Your task to perform on an android device: turn on the 12-hour format for clock Image 0: 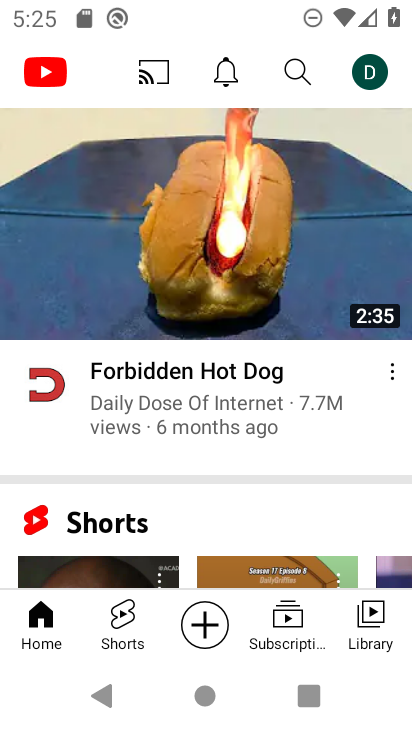
Step 0: press home button
Your task to perform on an android device: turn on the 12-hour format for clock Image 1: 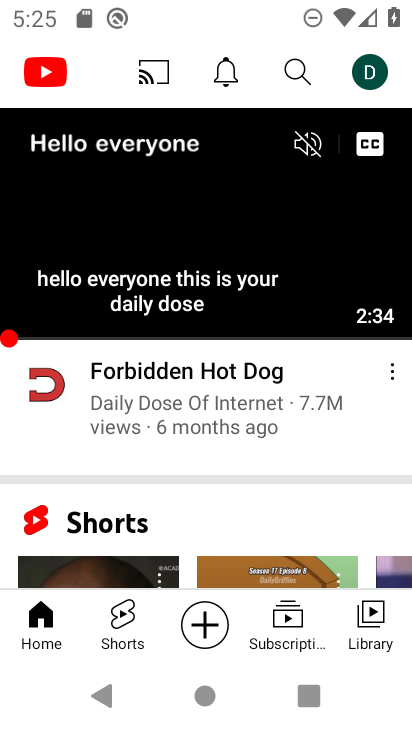
Step 1: press home button
Your task to perform on an android device: turn on the 12-hour format for clock Image 2: 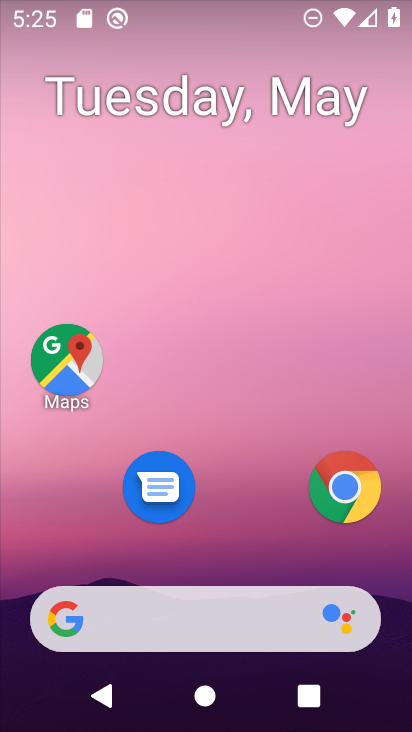
Step 2: drag from (284, 557) to (249, 3)
Your task to perform on an android device: turn on the 12-hour format for clock Image 3: 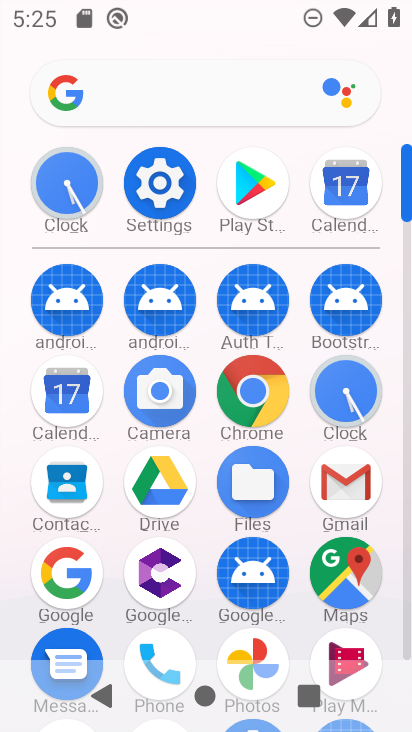
Step 3: click (141, 168)
Your task to perform on an android device: turn on the 12-hour format for clock Image 4: 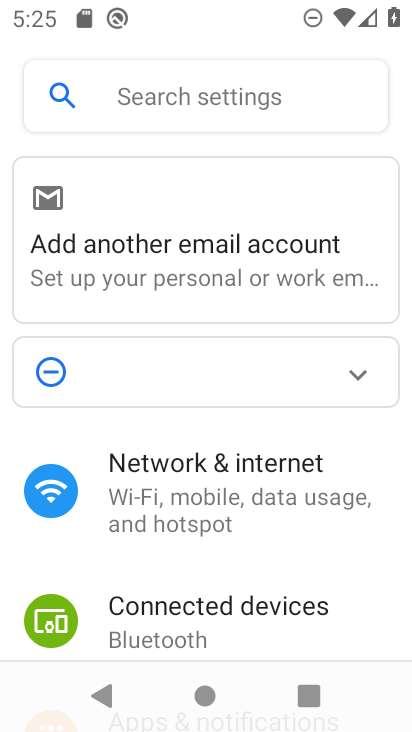
Step 4: press home button
Your task to perform on an android device: turn on the 12-hour format for clock Image 5: 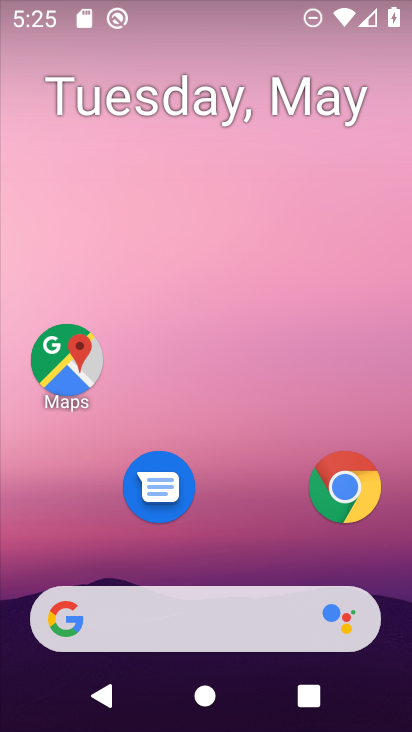
Step 5: drag from (286, 554) to (225, 218)
Your task to perform on an android device: turn on the 12-hour format for clock Image 6: 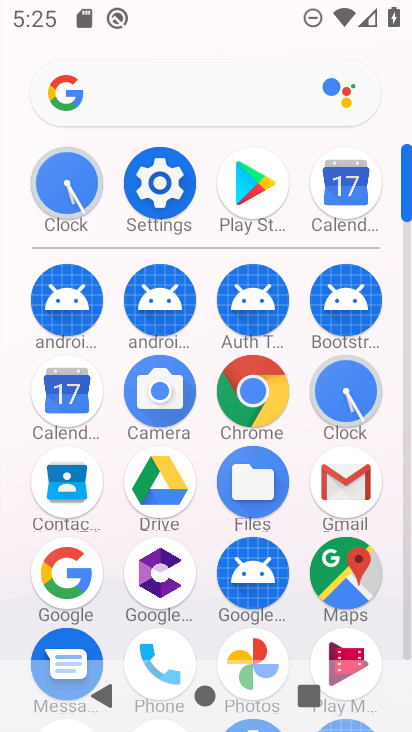
Step 6: click (357, 413)
Your task to perform on an android device: turn on the 12-hour format for clock Image 7: 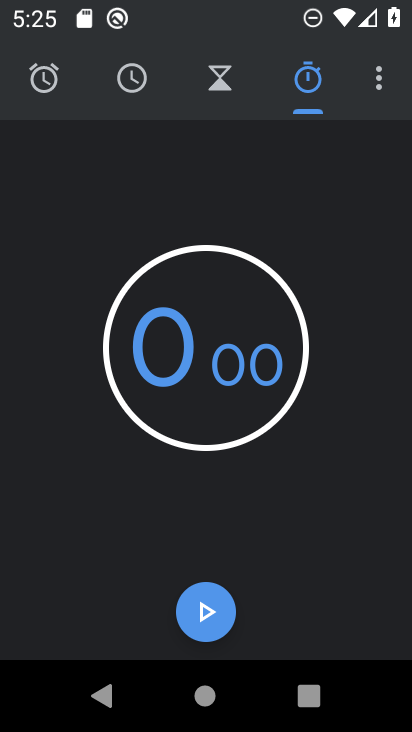
Step 7: click (385, 70)
Your task to perform on an android device: turn on the 12-hour format for clock Image 8: 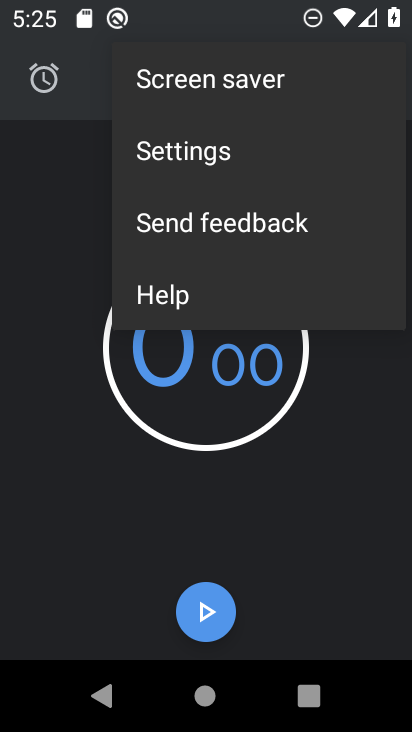
Step 8: click (184, 154)
Your task to perform on an android device: turn on the 12-hour format for clock Image 9: 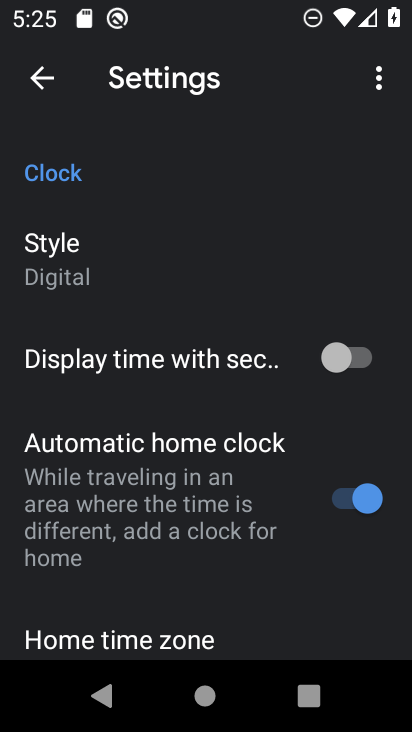
Step 9: drag from (140, 412) to (39, 60)
Your task to perform on an android device: turn on the 12-hour format for clock Image 10: 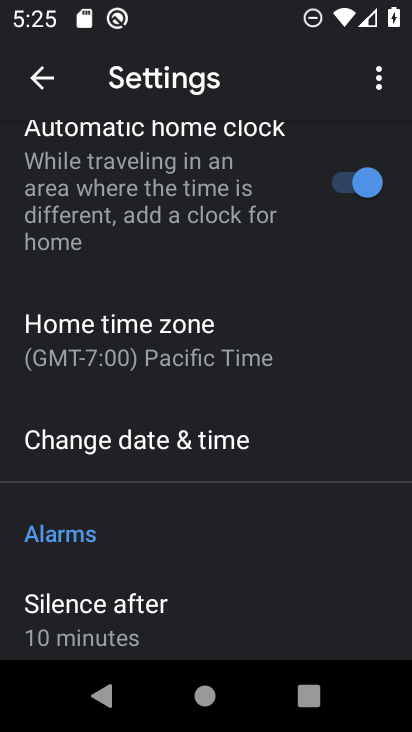
Step 10: click (74, 433)
Your task to perform on an android device: turn on the 12-hour format for clock Image 11: 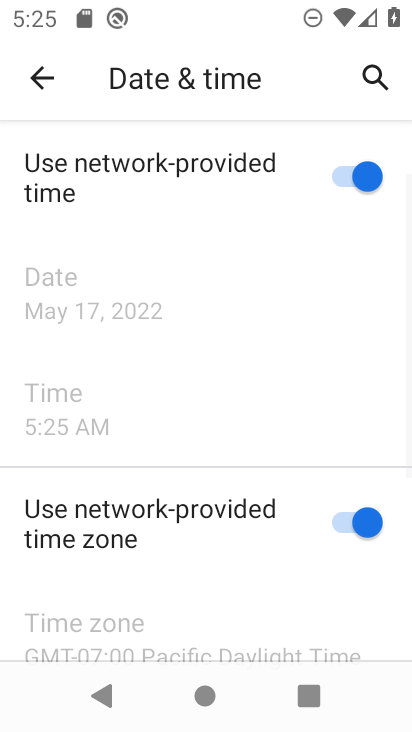
Step 11: drag from (157, 552) to (111, 60)
Your task to perform on an android device: turn on the 12-hour format for clock Image 12: 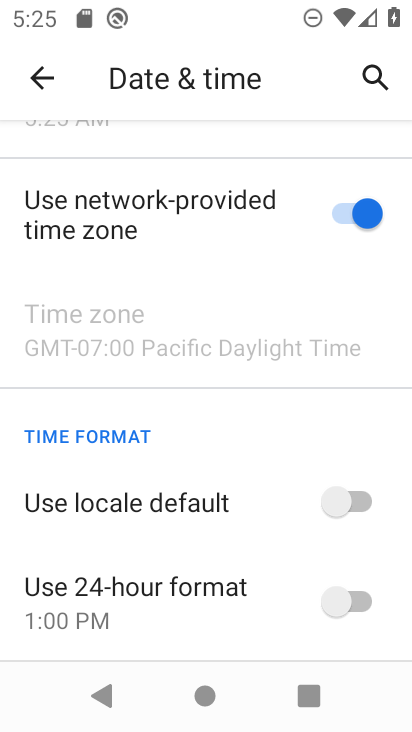
Step 12: click (182, 626)
Your task to perform on an android device: turn on the 12-hour format for clock Image 13: 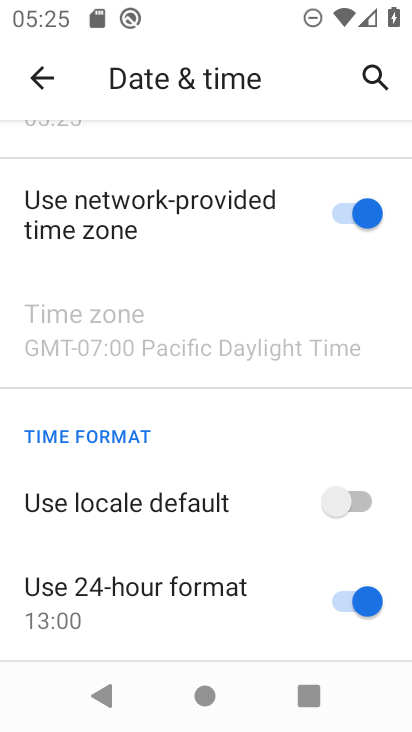
Step 13: click (358, 596)
Your task to perform on an android device: turn on the 12-hour format for clock Image 14: 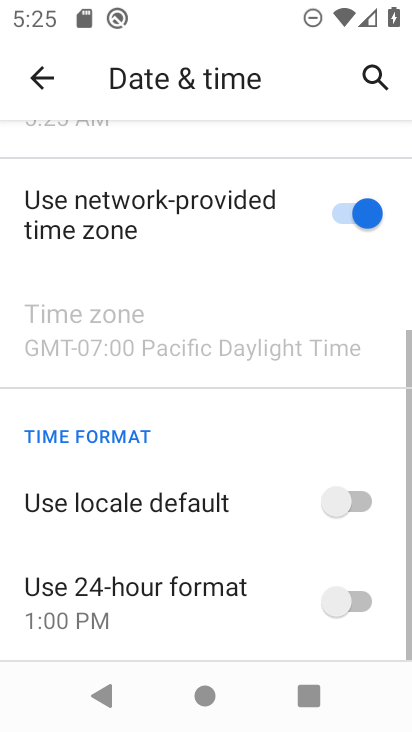
Step 14: task complete